Your task to perform on an android device: Go to ESPN.com Image 0: 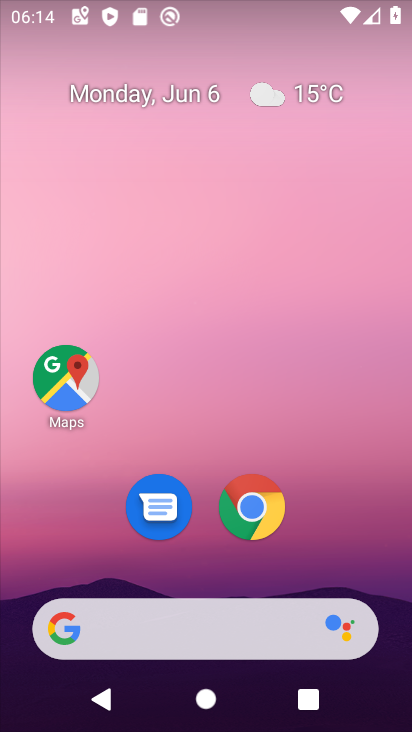
Step 0: click (251, 516)
Your task to perform on an android device: Go to ESPN.com Image 1: 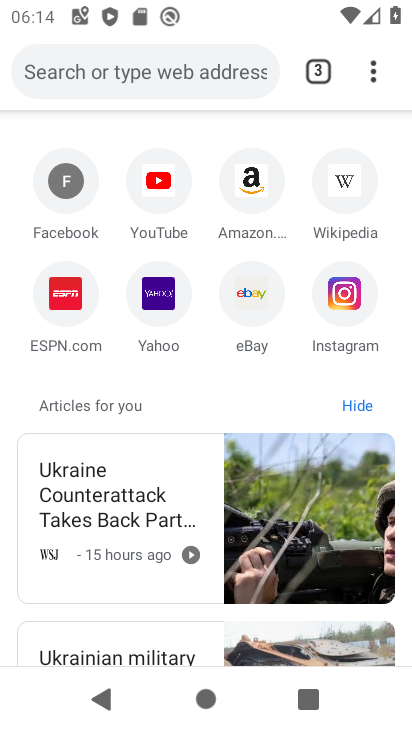
Step 1: click (72, 323)
Your task to perform on an android device: Go to ESPN.com Image 2: 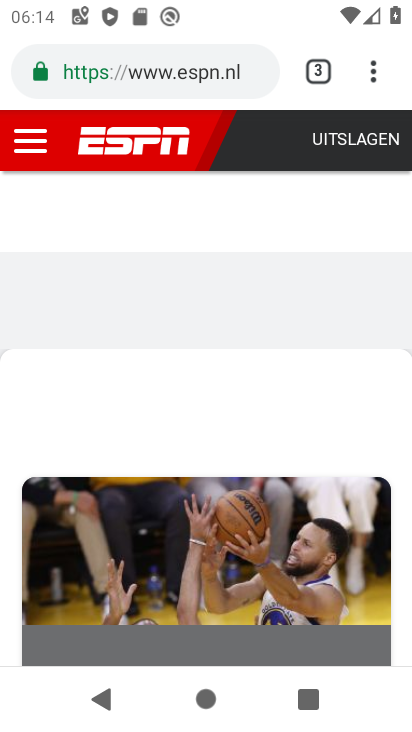
Step 2: task complete